Your task to perform on an android device: Show me the alarms in the clock app Image 0: 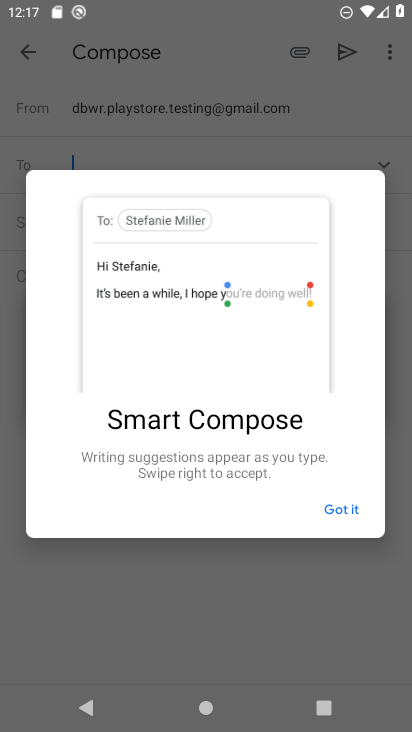
Step 0: press home button
Your task to perform on an android device: Show me the alarms in the clock app Image 1: 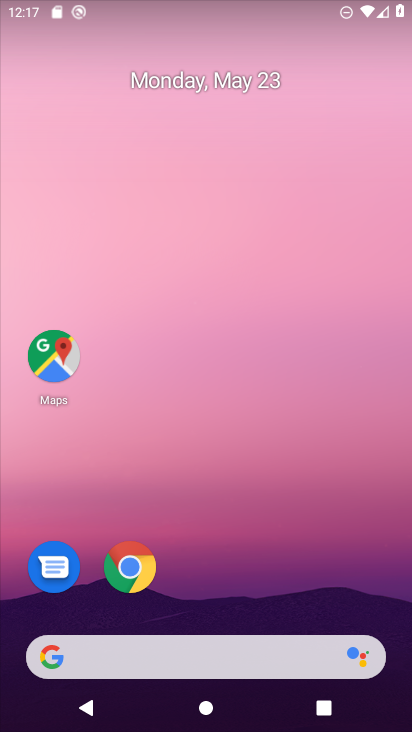
Step 1: drag from (197, 612) to (192, 110)
Your task to perform on an android device: Show me the alarms in the clock app Image 2: 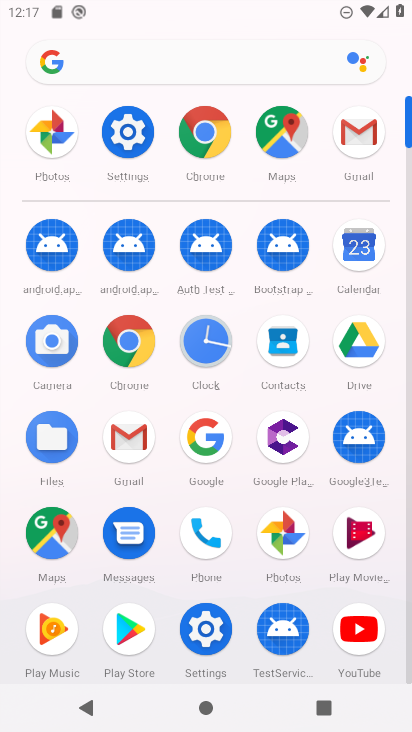
Step 2: click (209, 353)
Your task to perform on an android device: Show me the alarms in the clock app Image 3: 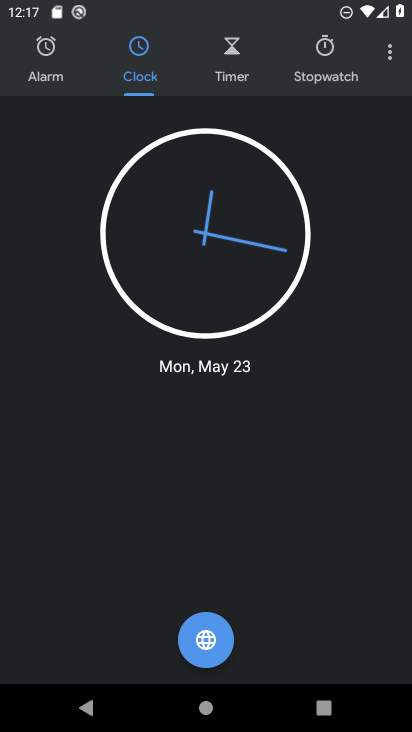
Step 3: click (42, 81)
Your task to perform on an android device: Show me the alarms in the clock app Image 4: 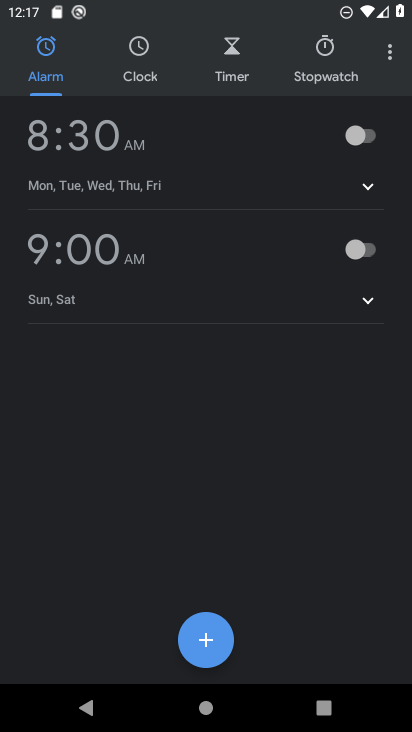
Step 4: task complete